Your task to perform on an android device: open a bookmark in the chrome app Image 0: 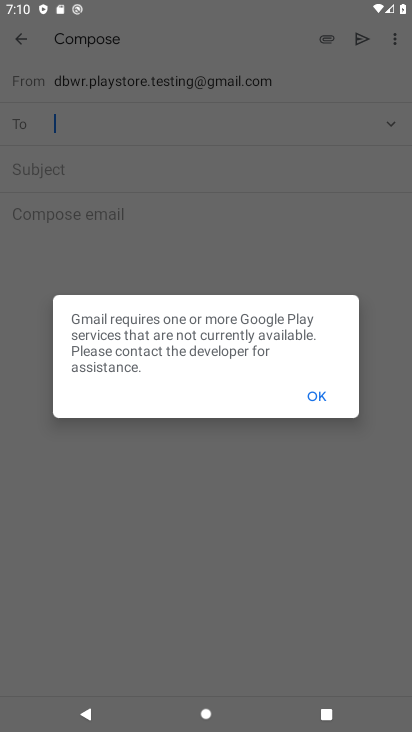
Step 0: press home button
Your task to perform on an android device: open a bookmark in the chrome app Image 1: 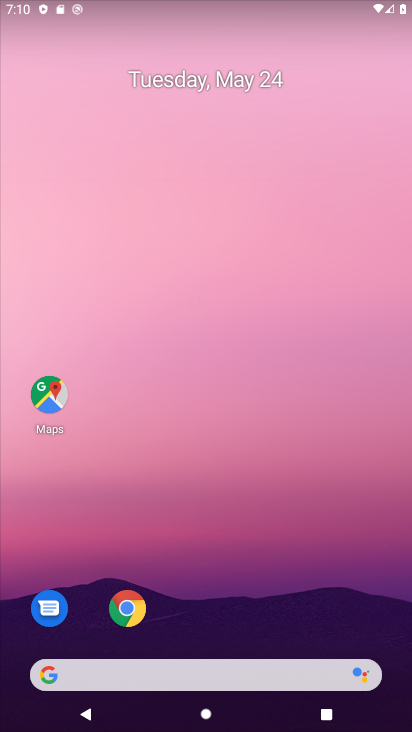
Step 1: click (126, 608)
Your task to perform on an android device: open a bookmark in the chrome app Image 2: 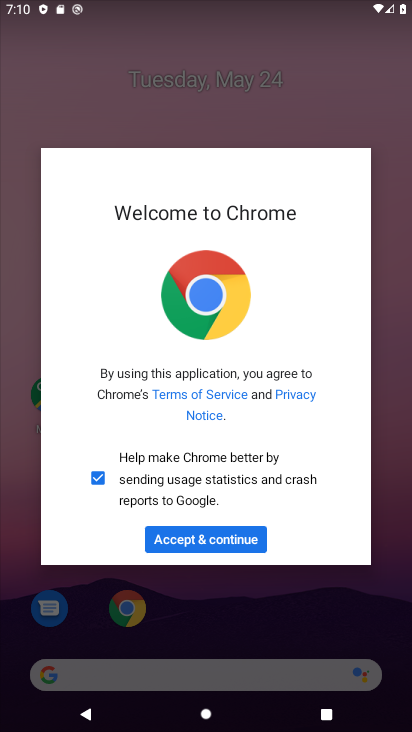
Step 2: click (201, 538)
Your task to perform on an android device: open a bookmark in the chrome app Image 3: 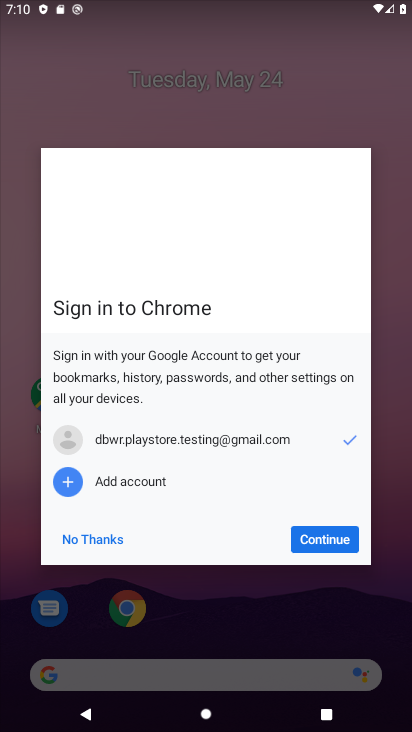
Step 3: click (314, 537)
Your task to perform on an android device: open a bookmark in the chrome app Image 4: 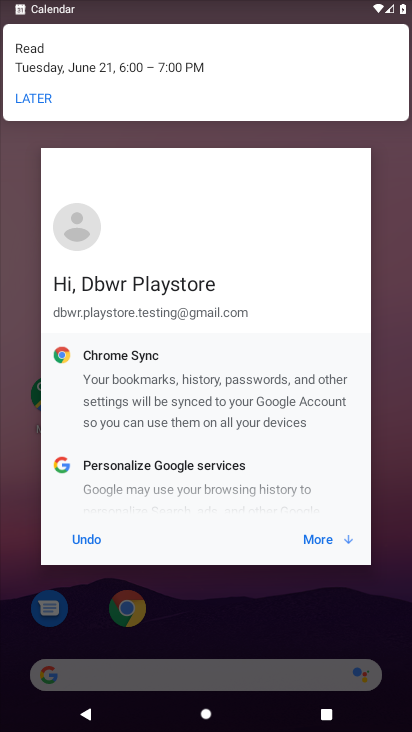
Step 4: click (314, 537)
Your task to perform on an android device: open a bookmark in the chrome app Image 5: 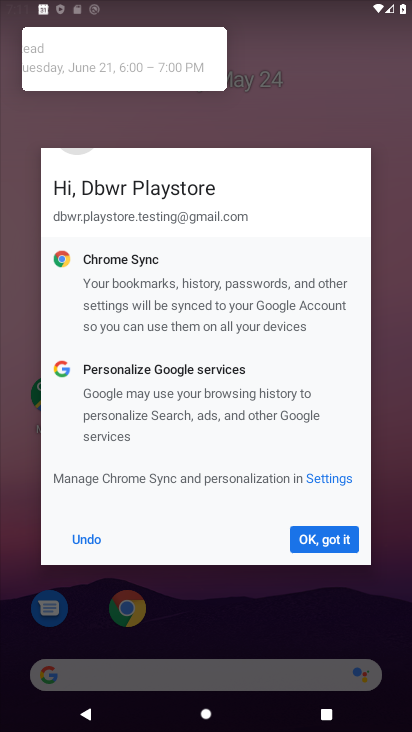
Step 5: click (314, 537)
Your task to perform on an android device: open a bookmark in the chrome app Image 6: 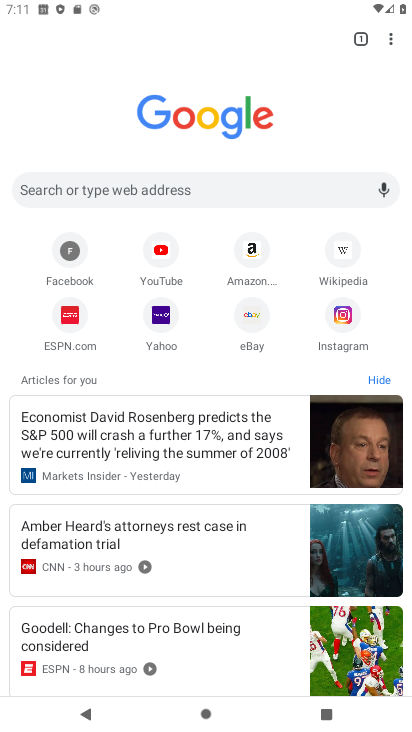
Step 6: click (391, 39)
Your task to perform on an android device: open a bookmark in the chrome app Image 7: 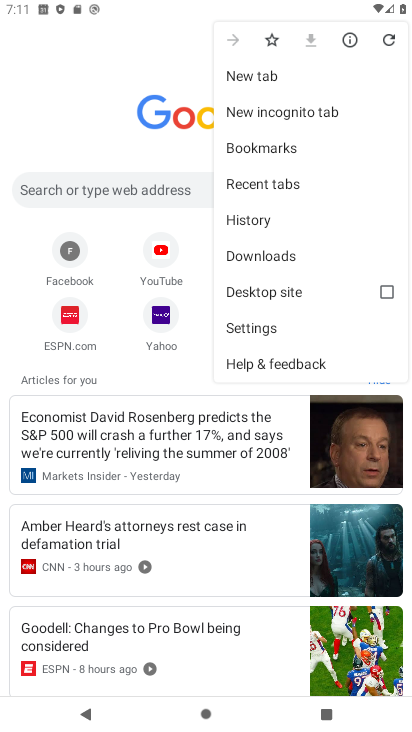
Step 7: click (284, 149)
Your task to perform on an android device: open a bookmark in the chrome app Image 8: 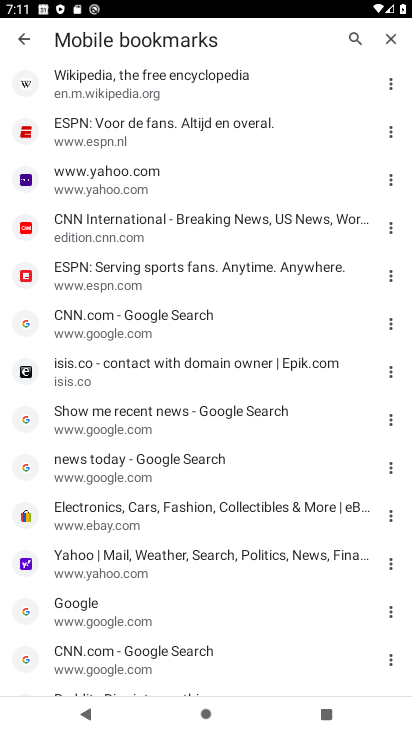
Step 8: task complete